Your task to perform on an android device: Go to Google Image 0: 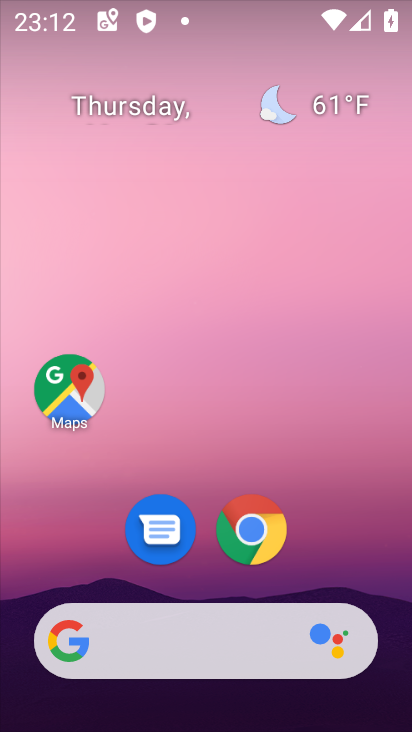
Step 0: click (210, 650)
Your task to perform on an android device: Go to Google Image 1: 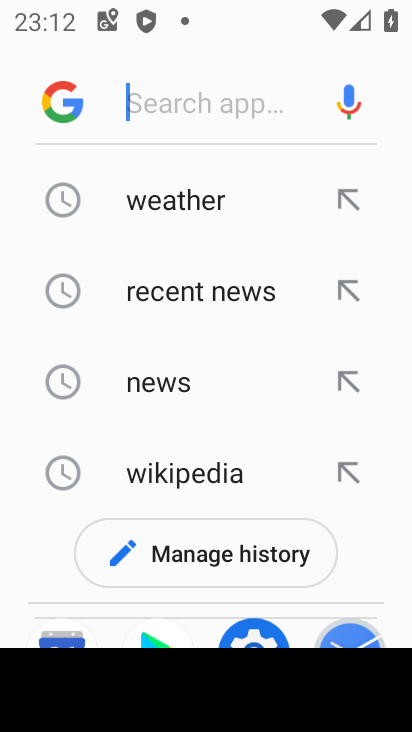
Step 1: type "googl.com"
Your task to perform on an android device: Go to Google Image 2: 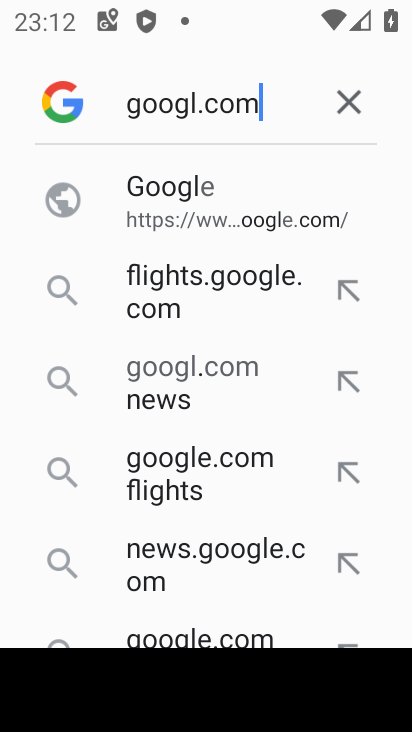
Step 2: click (196, 183)
Your task to perform on an android device: Go to Google Image 3: 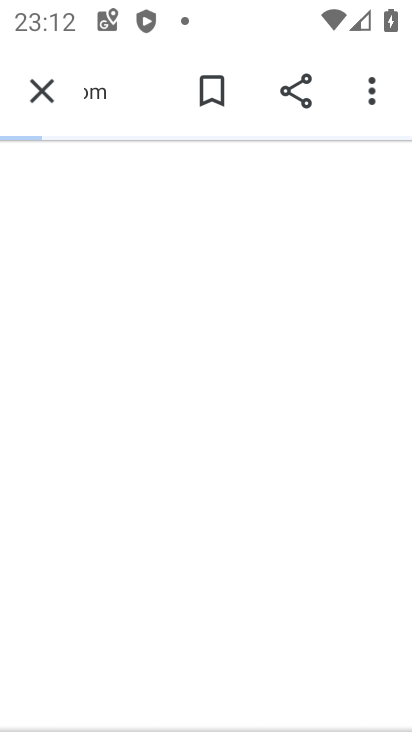
Step 3: task complete